Your task to perform on an android device: turn on priority inbox in the gmail app Image 0: 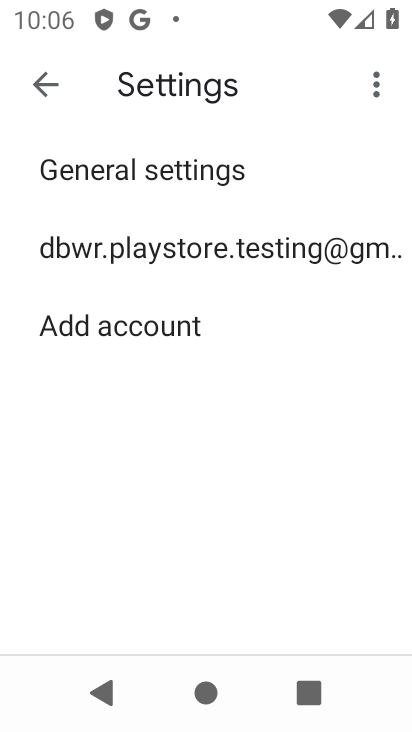
Step 0: click (63, 255)
Your task to perform on an android device: turn on priority inbox in the gmail app Image 1: 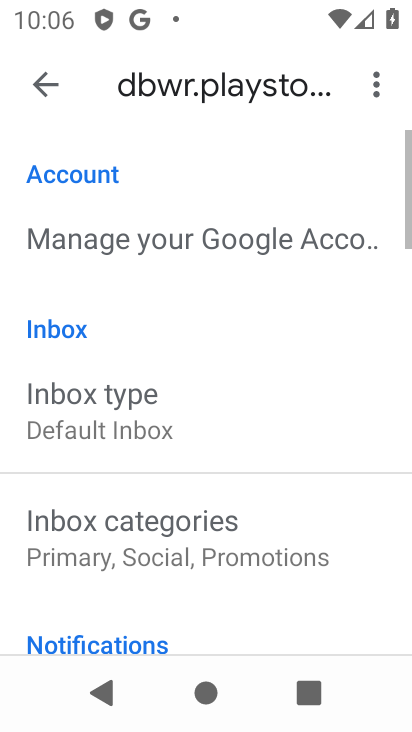
Step 1: click (116, 413)
Your task to perform on an android device: turn on priority inbox in the gmail app Image 2: 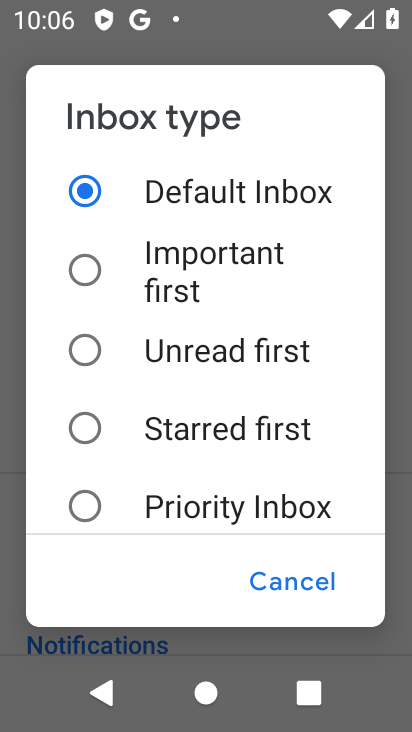
Step 2: task complete